Your task to perform on an android device: Open the calendar and show me this week's events? Image 0: 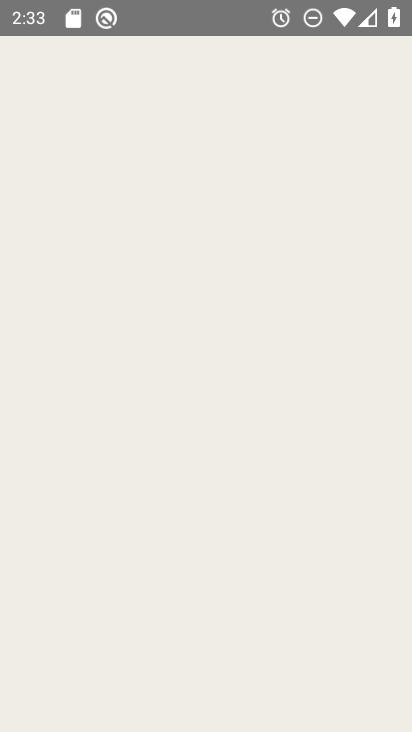
Step 0: press home button
Your task to perform on an android device: Open the calendar and show me this week's events? Image 1: 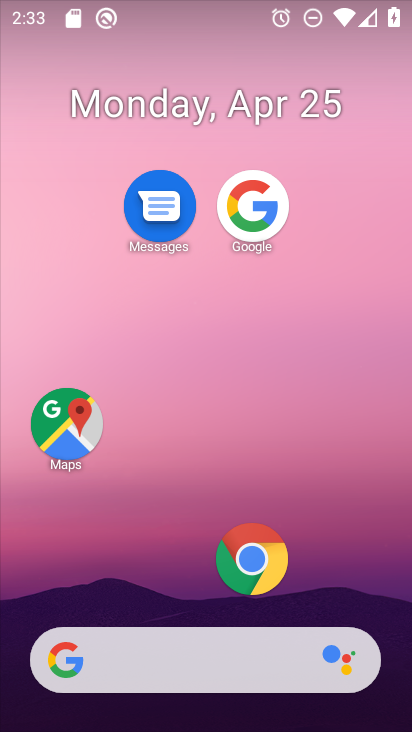
Step 1: drag from (165, 527) to (145, 136)
Your task to perform on an android device: Open the calendar and show me this week's events? Image 2: 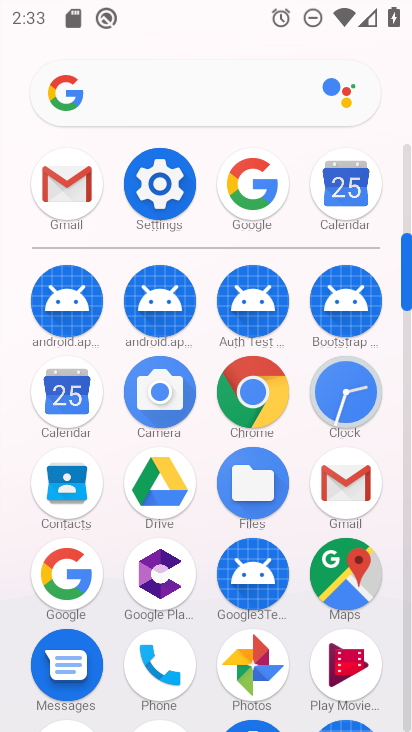
Step 2: click (70, 392)
Your task to perform on an android device: Open the calendar and show me this week's events? Image 3: 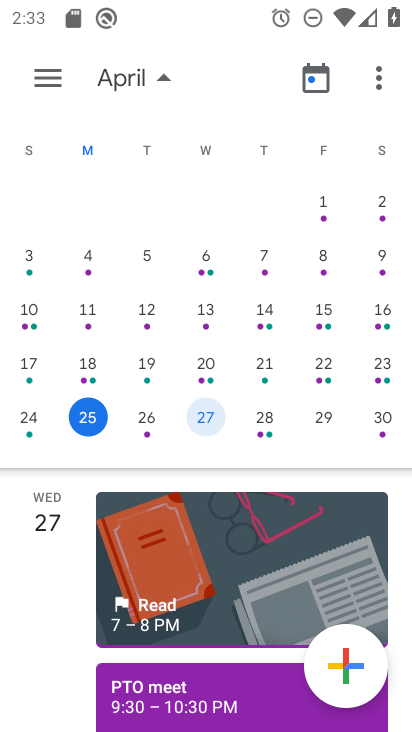
Step 3: click (147, 419)
Your task to perform on an android device: Open the calendar and show me this week's events? Image 4: 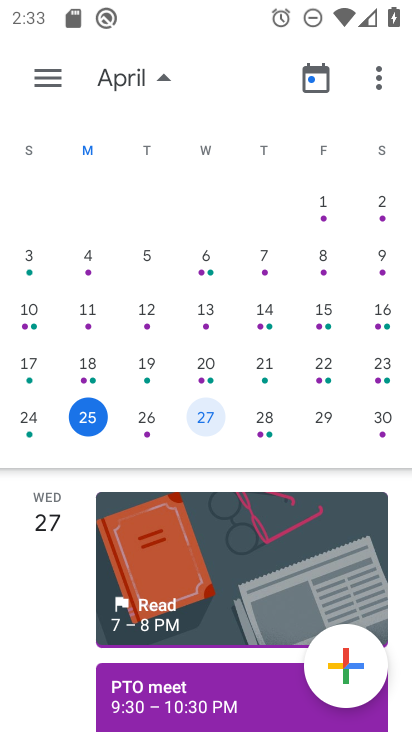
Step 4: click (146, 417)
Your task to perform on an android device: Open the calendar and show me this week's events? Image 5: 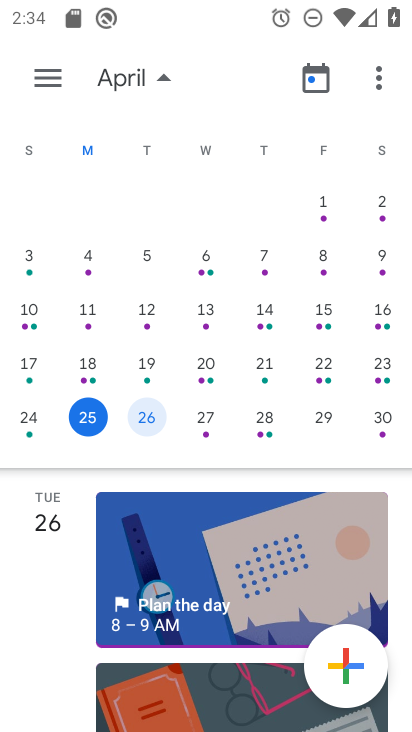
Step 5: task complete